Your task to perform on an android device: turn on wifi Image 0: 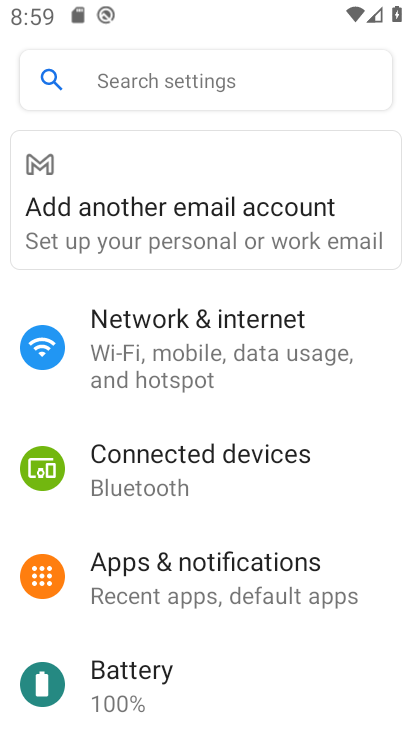
Step 0: click (277, 321)
Your task to perform on an android device: turn on wifi Image 1: 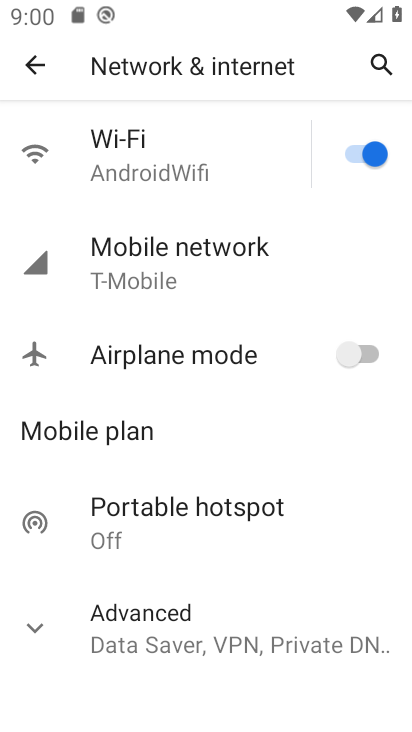
Step 1: task complete